Your task to perform on an android device: turn on javascript in the chrome app Image 0: 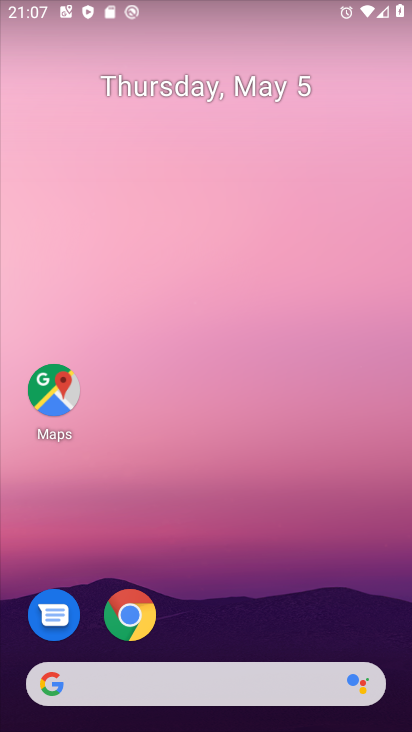
Step 0: click (138, 606)
Your task to perform on an android device: turn on javascript in the chrome app Image 1: 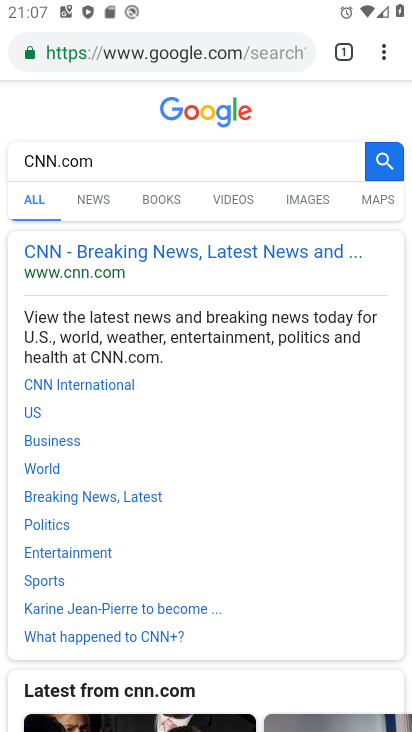
Step 1: click (386, 64)
Your task to perform on an android device: turn on javascript in the chrome app Image 2: 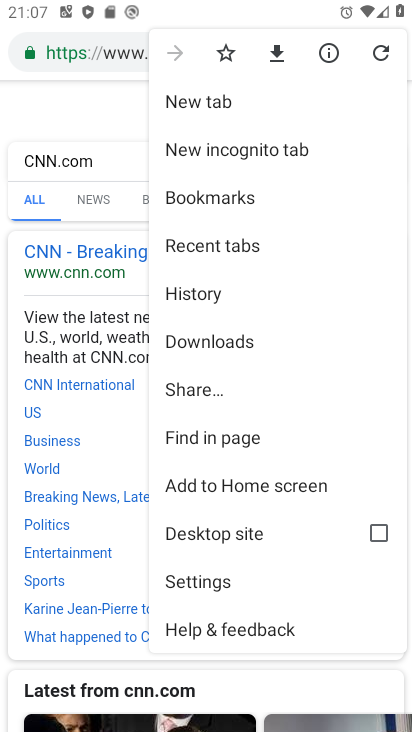
Step 2: click (214, 584)
Your task to perform on an android device: turn on javascript in the chrome app Image 3: 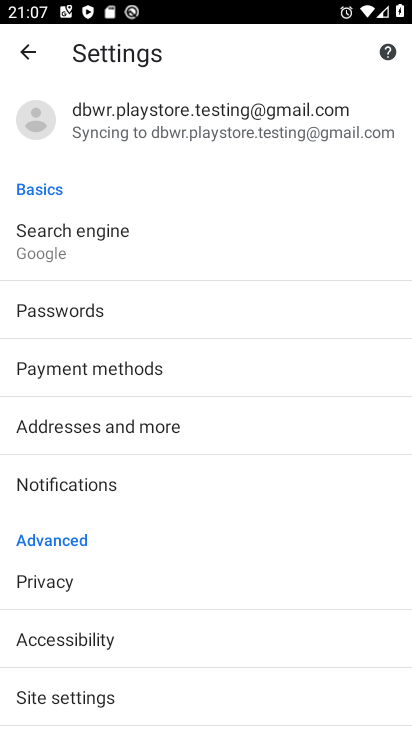
Step 3: drag from (88, 638) to (129, 486)
Your task to perform on an android device: turn on javascript in the chrome app Image 4: 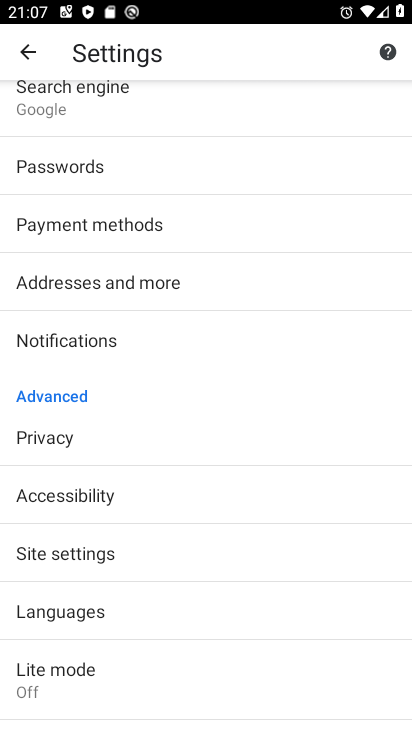
Step 4: click (78, 566)
Your task to perform on an android device: turn on javascript in the chrome app Image 5: 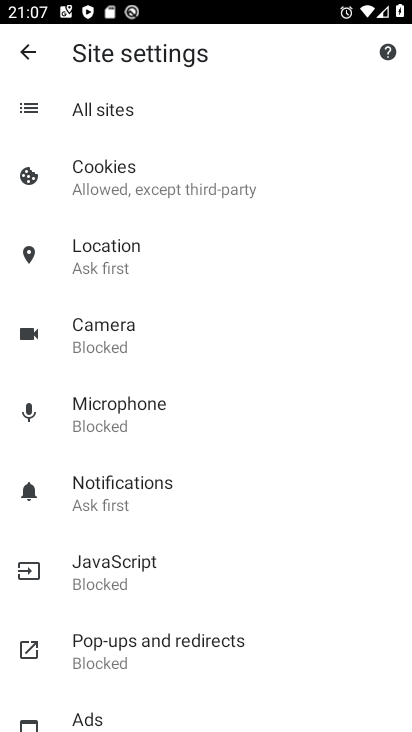
Step 5: click (113, 574)
Your task to perform on an android device: turn on javascript in the chrome app Image 6: 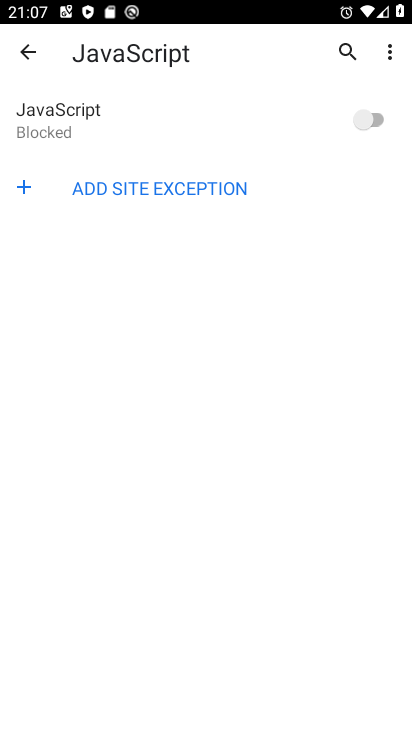
Step 6: click (380, 118)
Your task to perform on an android device: turn on javascript in the chrome app Image 7: 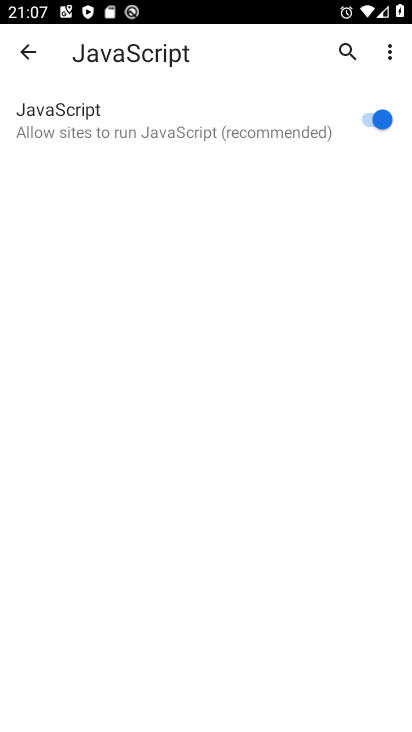
Step 7: task complete